Your task to perform on an android device: open chrome privacy settings Image 0: 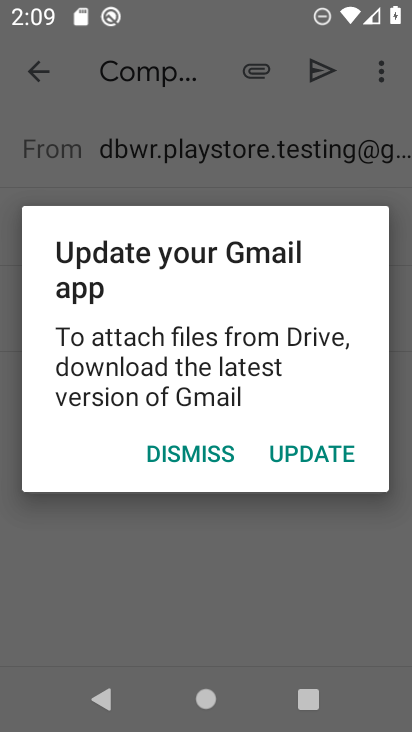
Step 0: press home button
Your task to perform on an android device: open chrome privacy settings Image 1: 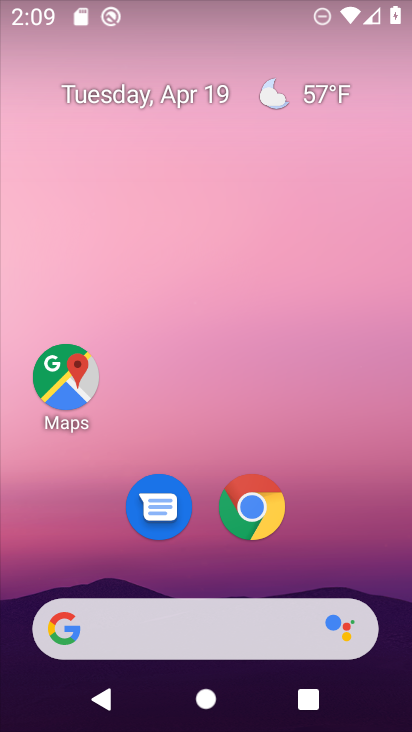
Step 1: click (266, 528)
Your task to perform on an android device: open chrome privacy settings Image 2: 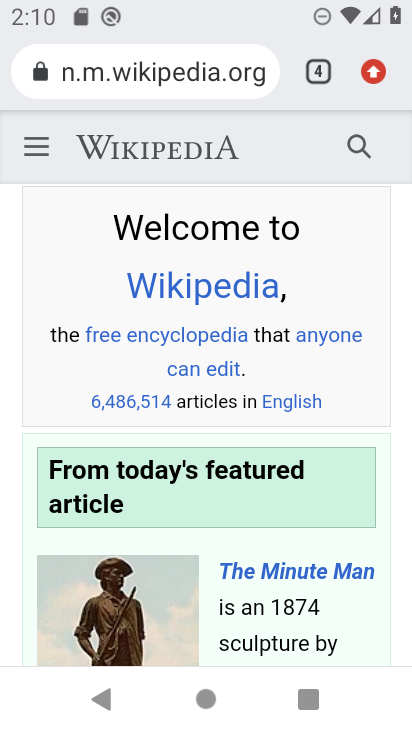
Step 2: click (362, 66)
Your task to perform on an android device: open chrome privacy settings Image 3: 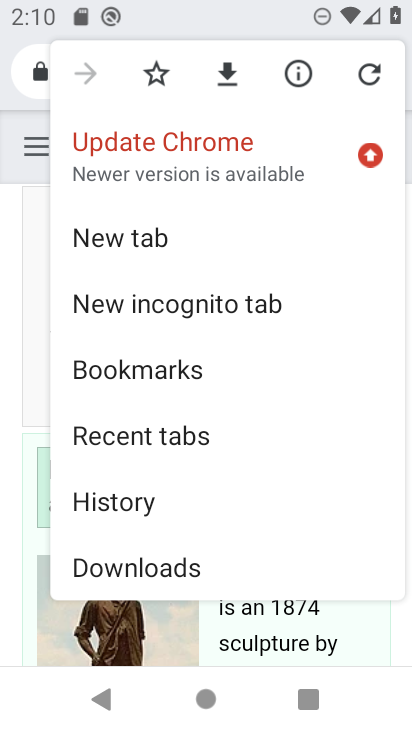
Step 3: drag from (239, 455) to (253, 259)
Your task to perform on an android device: open chrome privacy settings Image 4: 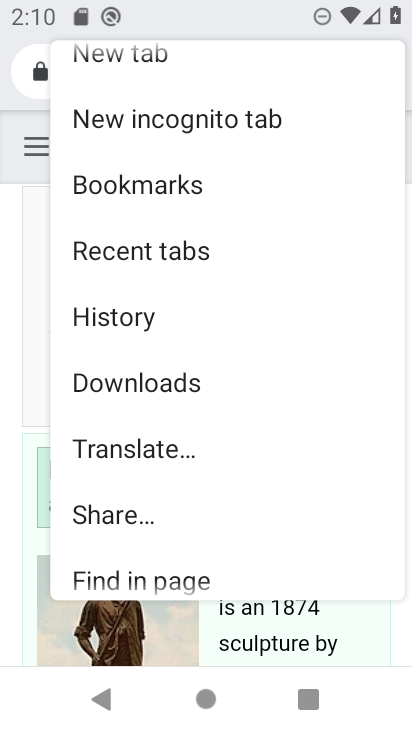
Step 4: drag from (227, 507) to (290, 183)
Your task to perform on an android device: open chrome privacy settings Image 5: 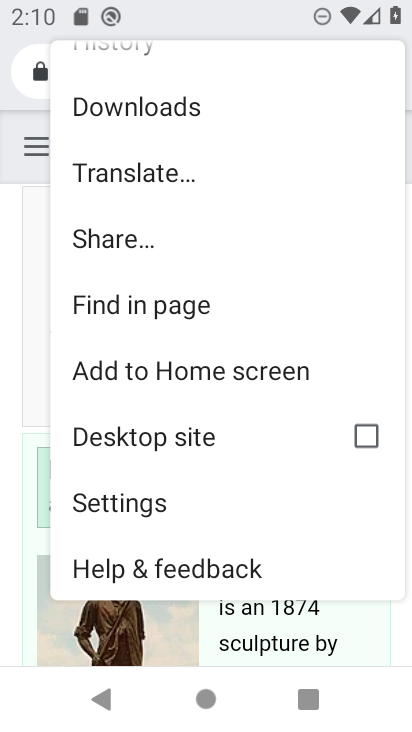
Step 5: click (211, 502)
Your task to perform on an android device: open chrome privacy settings Image 6: 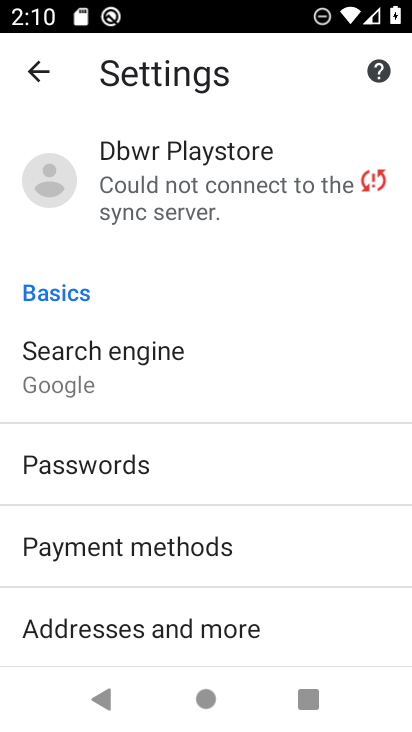
Step 6: drag from (192, 487) to (203, 238)
Your task to perform on an android device: open chrome privacy settings Image 7: 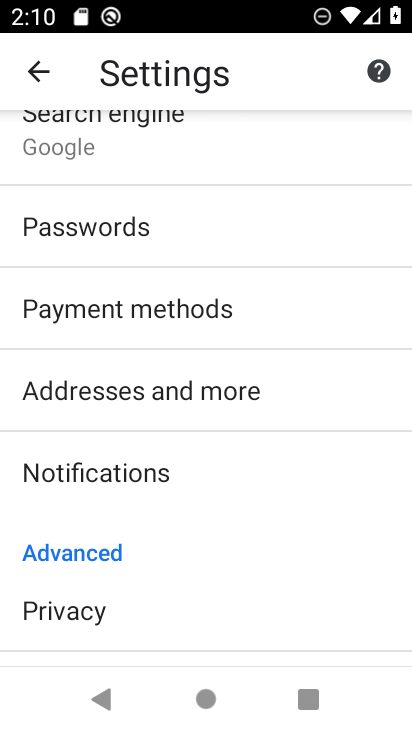
Step 7: click (185, 594)
Your task to perform on an android device: open chrome privacy settings Image 8: 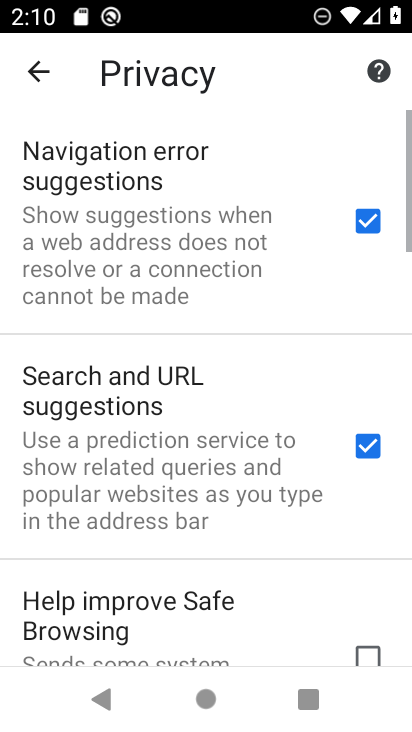
Step 8: task complete